Your task to perform on an android device: move a message to another label in the gmail app Image 0: 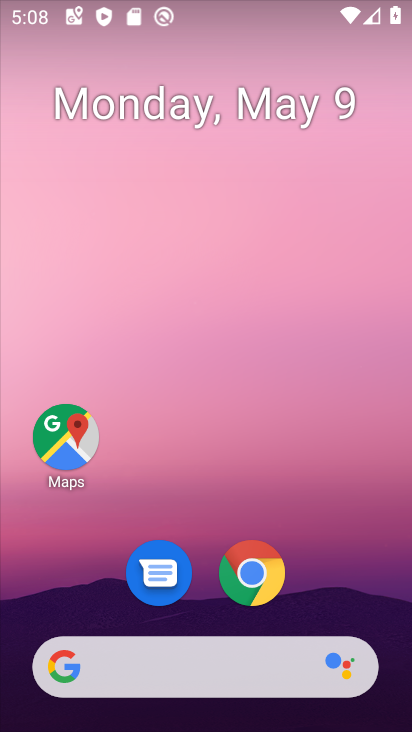
Step 0: drag from (287, 610) to (255, 175)
Your task to perform on an android device: move a message to another label in the gmail app Image 1: 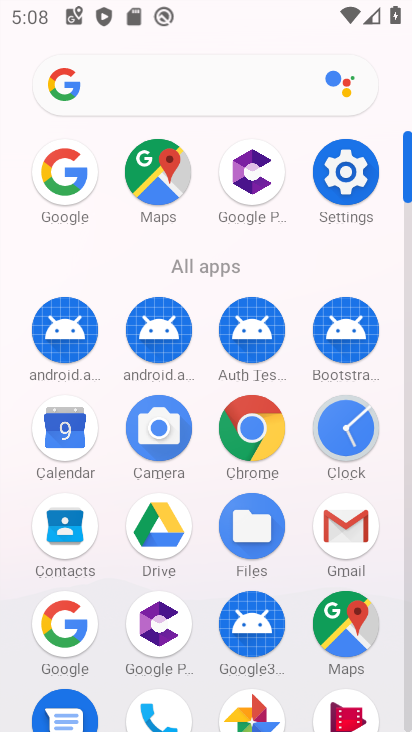
Step 1: click (353, 508)
Your task to perform on an android device: move a message to another label in the gmail app Image 2: 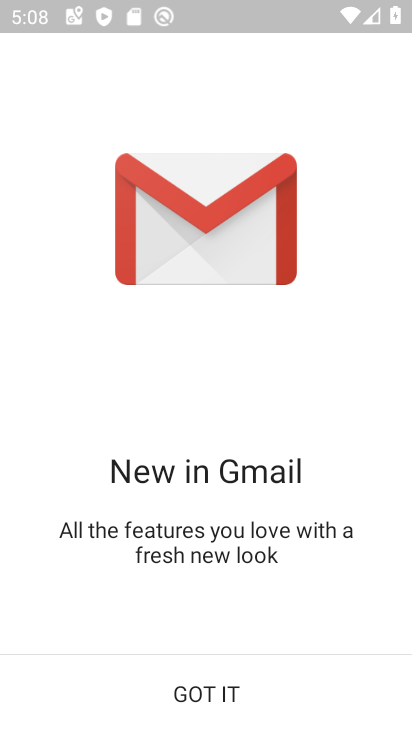
Step 2: click (224, 708)
Your task to perform on an android device: move a message to another label in the gmail app Image 3: 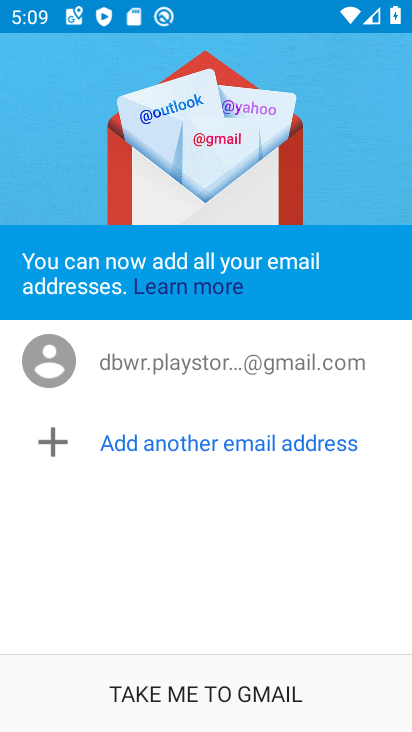
Step 3: click (129, 703)
Your task to perform on an android device: move a message to another label in the gmail app Image 4: 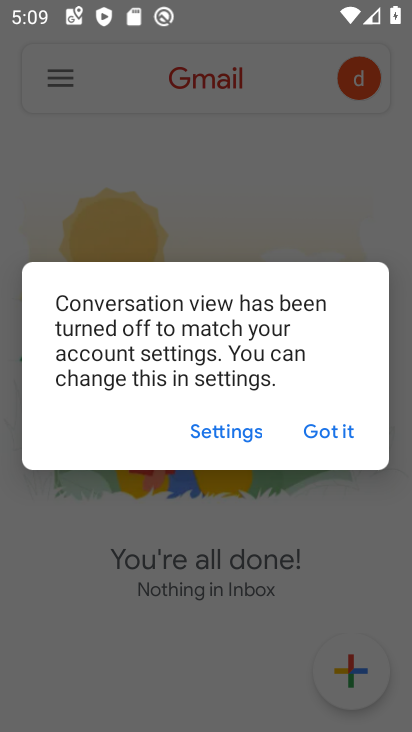
Step 4: click (353, 429)
Your task to perform on an android device: move a message to another label in the gmail app Image 5: 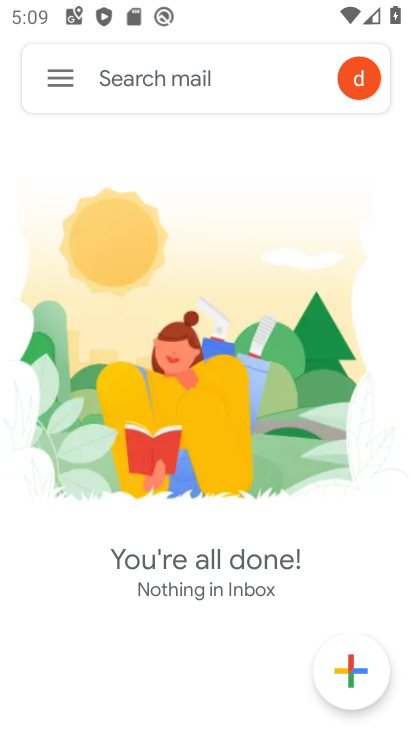
Step 5: click (188, 83)
Your task to perform on an android device: move a message to another label in the gmail app Image 6: 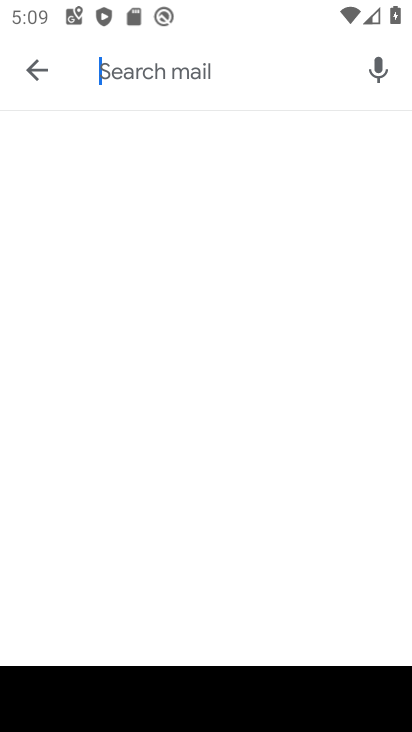
Step 6: press home button
Your task to perform on an android device: move a message to another label in the gmail app Image 7: 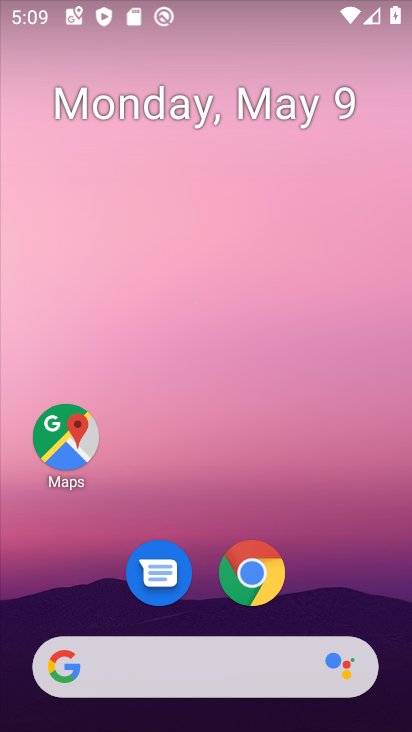
Step 7: drag from (334, 591) to (271, 142)
Your task to perform on an android device: move a message to another label in the gmail app Image 8: 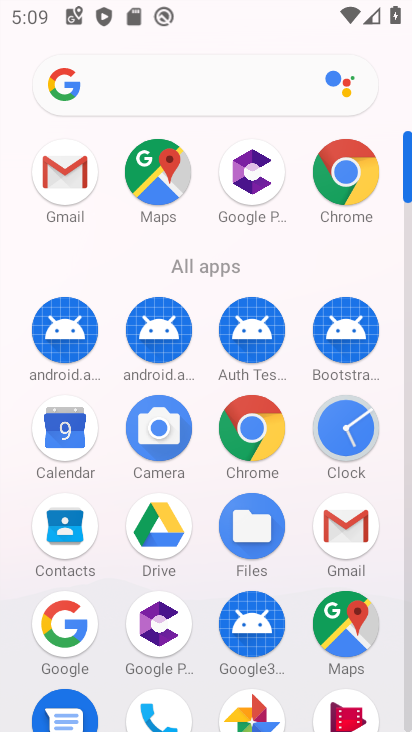
Step 8: click (68, 199)
Your task to perform on an android device: move a message to another label in the gmail app Image 9: 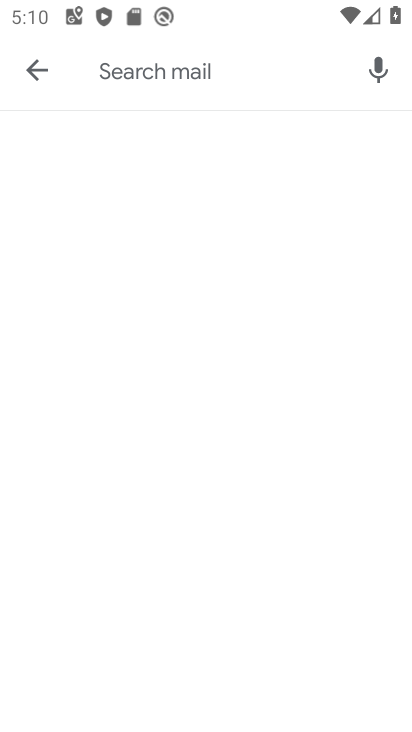
Step 9: click (33, 69)
Your task to perform on an android device: move a message to another label in the gmail app Image 10: 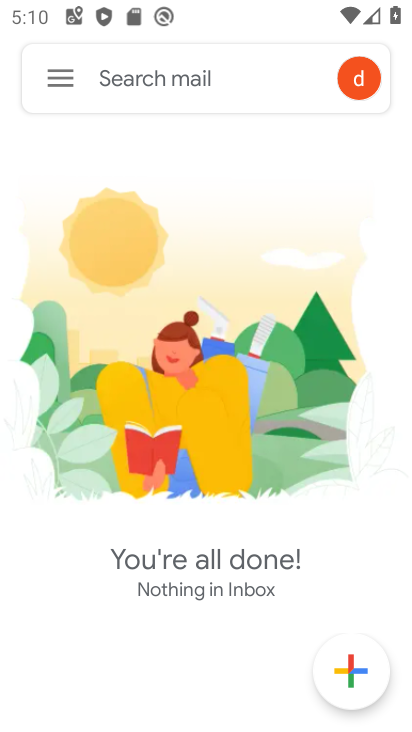
Step 10: click (62, 72)
Your task to perform on an android device: move a message to another label in the gmail app Image 11: 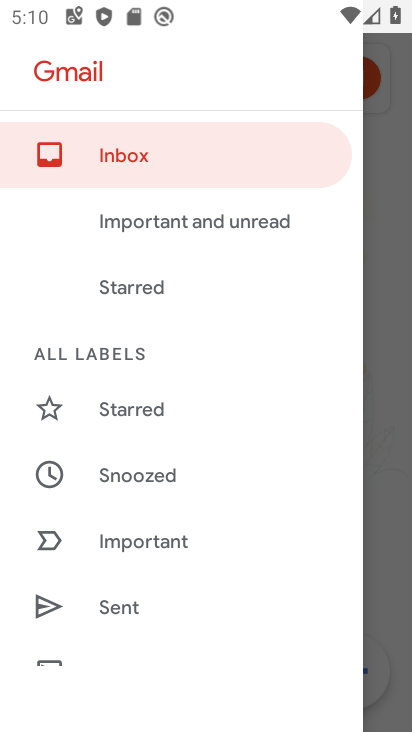
Step 11: drag from (138, 594) to (194, 257)
Your task to perform on an android device: move a message to another label in the gmail app Image 12: 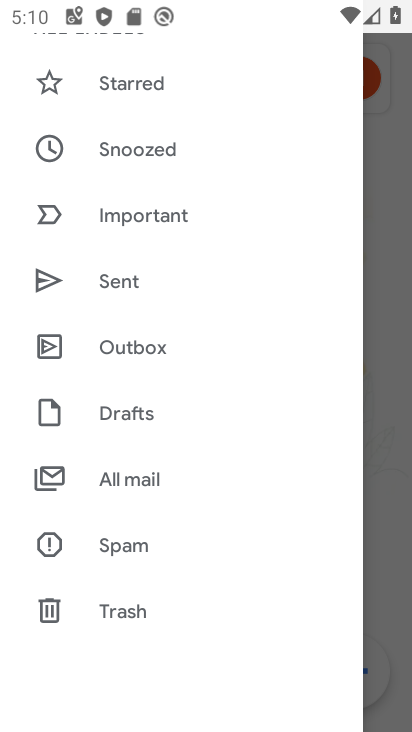
Step 12: drag from (172, 552) to (260, 185)
Your task to perform on an android device: move a message to another label in the gmail app Image 13: 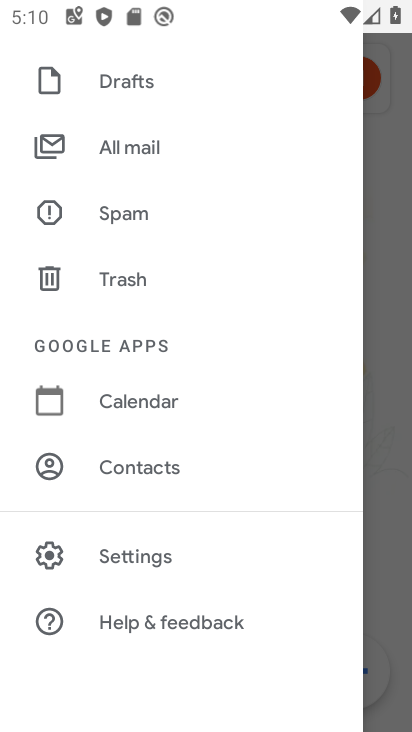
Step 13: click (125, 572)
Your task to perform on an android device: move a message to another label in the gmail app Image 14: 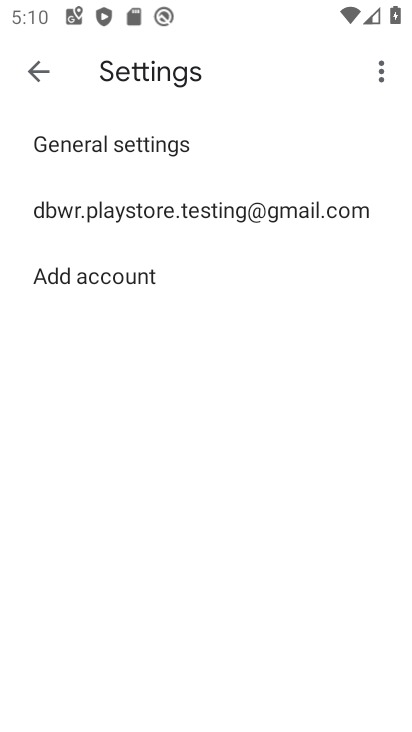
Step 14: click (143, 210)
Your task to perform on an android device: move a message to another label in the gmail app Image 15: 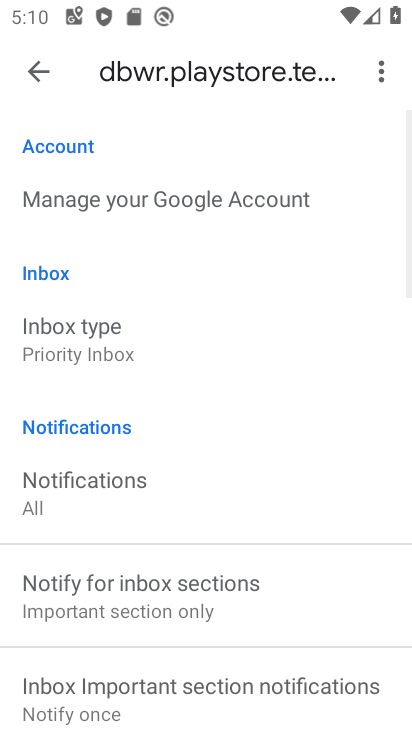
Step 15: drag from (189, 587) to (236, 238)
Your task to perform on an android device: move a message to another label in the gmail app Image 16: 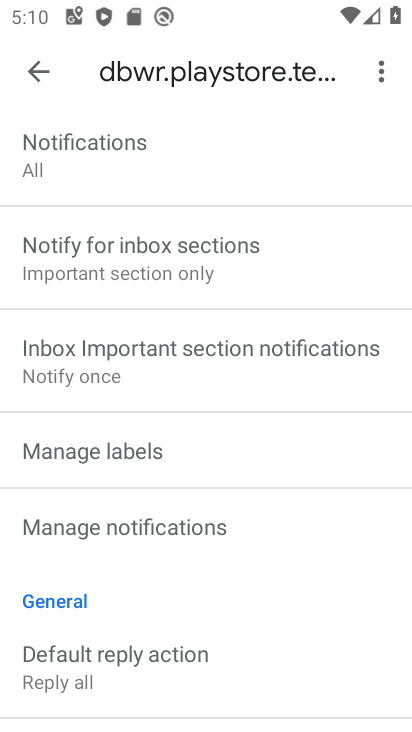
Step 16: drag from (257, 448) to (257, 296)
Your task to perform on an android device: move a message to another label in the gmail app Image 17: 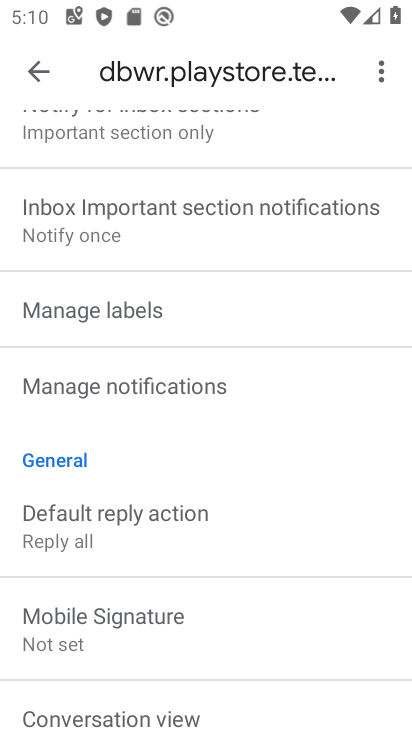
Step 17: drag from (244, 598) to (253, 319)
Your task to perform on an android device: move a message to another label in the gmail app Image 18: 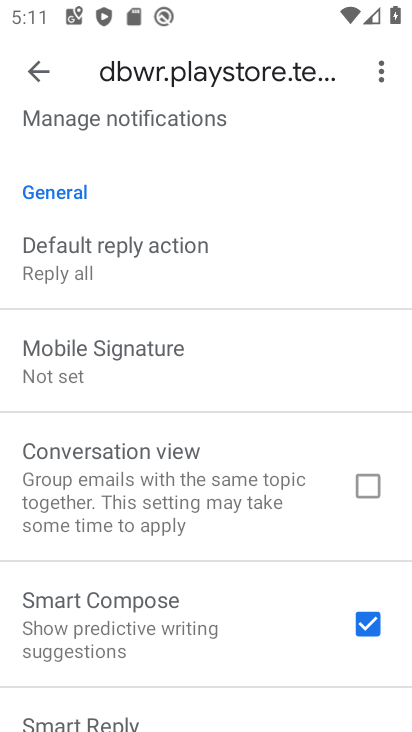
Step 18: press home button
Your task to perform on an android device: move a message to another label in the gmail app Image 19: 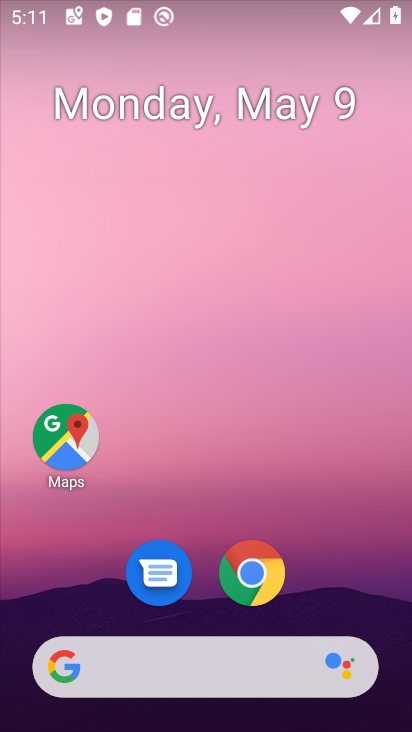
Step 19: drag from (267, 535) to (175, 123)
Your task to perform on an android device: move a message to another label in the gmail app Image 20: 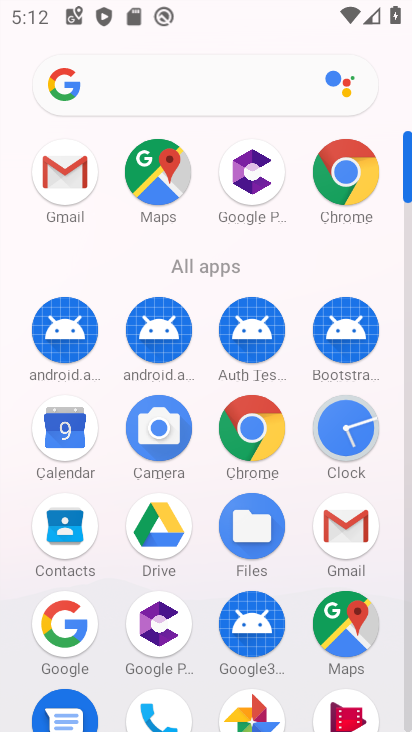
Step 20: drag from (213, 604) to (280, 231)
Your task to perform on an android device: move a message to another label in the gmail app Image 21: 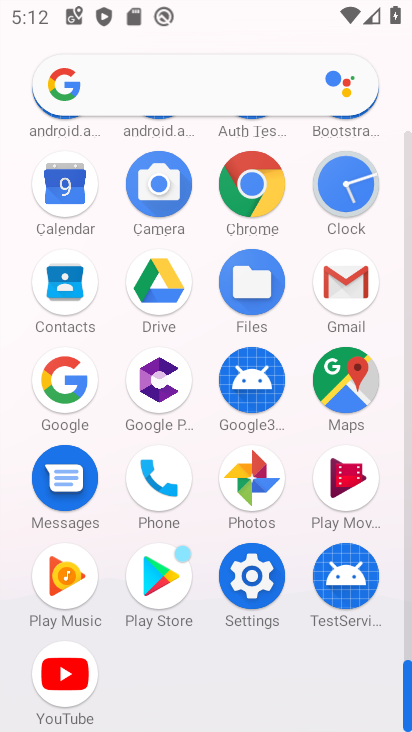
Step 21: drag from (199, 563) to (213, 412)
Your task to perform on an android device: move a message to another label in the gmail app Image 22: 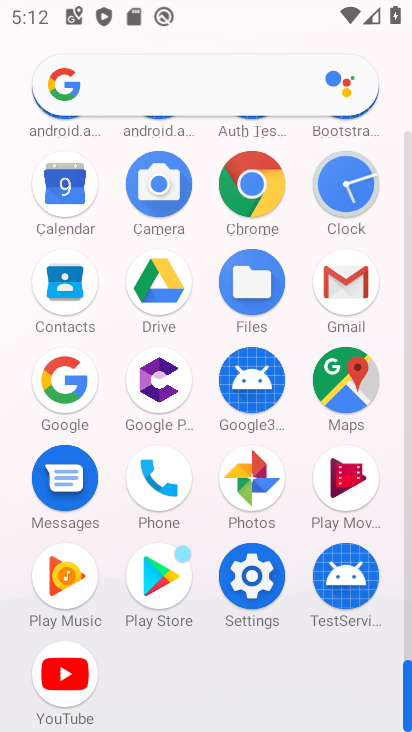
Step 22: click (374, 264)
Your task to perform on an android device: move a message to another label in the gmail app Image 23: 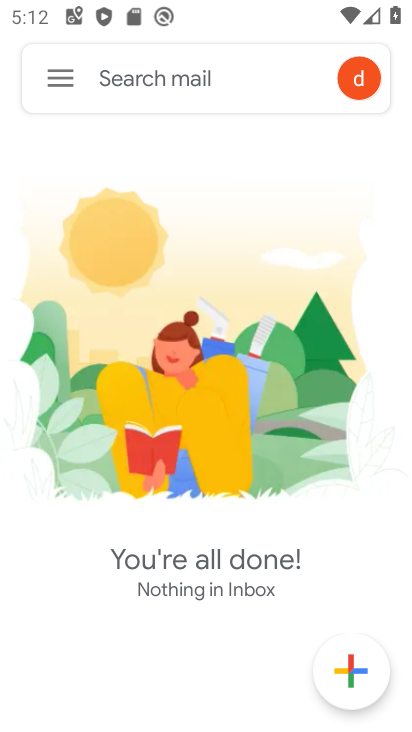
Step 23: click (49, 77)
Your task to perform on an android device: move a message to another label in the gmail app Image 24: 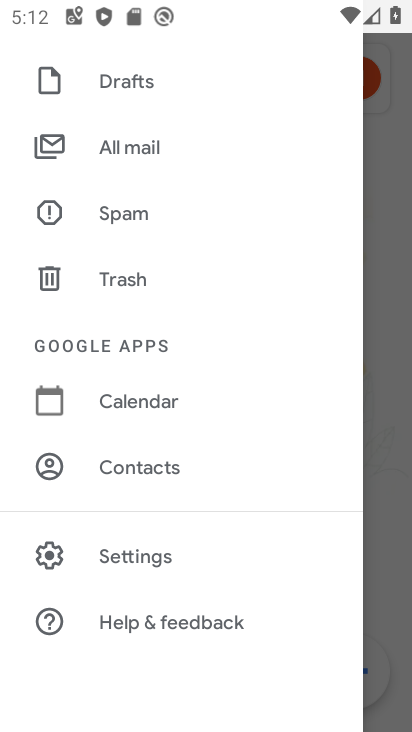
Step 24: drag from (192, 215) to (197, 672)
Your task to perform on an android device: move a message to another label in the gmail app Image 25: 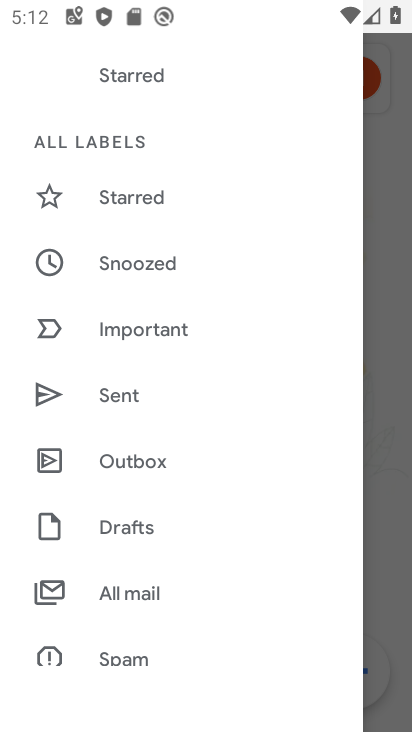
Step 25: click (154, 591)
Your task to perform on an android device: move a message to another label in the gmail app Image 26: 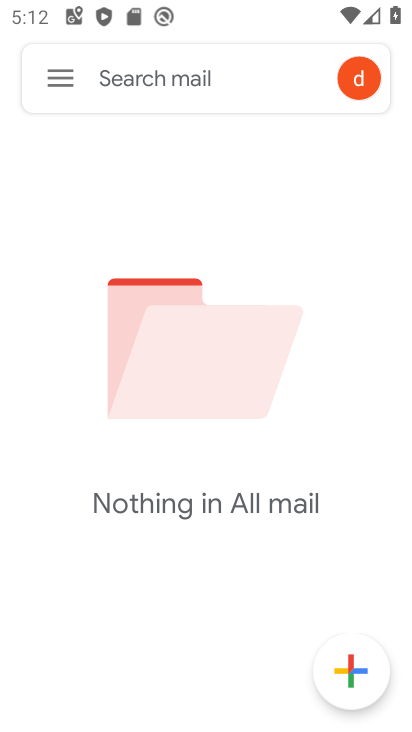
Step 26: task complete